Your task to perform on an android device: Open the map Image 0: 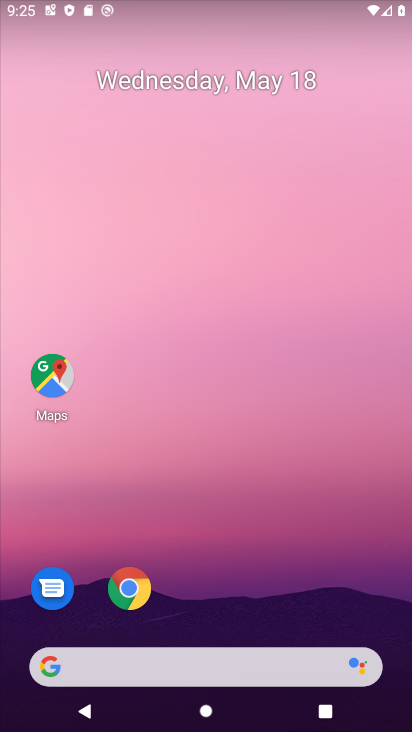
Step 0: drag from (286, 672) to (337, 129)
Your task to perform on an android device: Open the map Image 1: 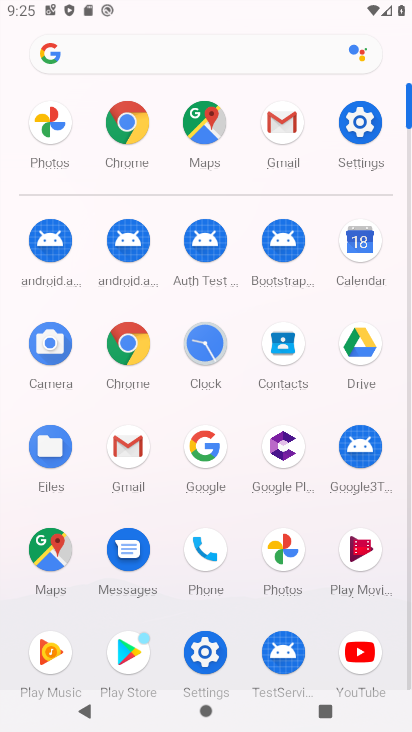
Step 1: click (213, 134)
Your task to perform on an android device: Open the map Image 2: 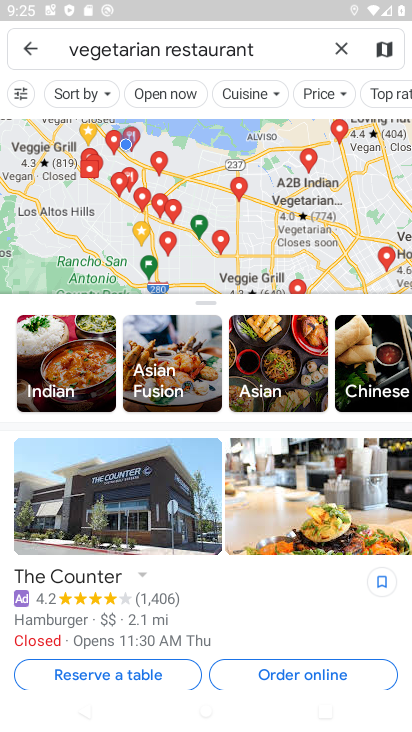
Step 2: click (22, 56)
Your task to perform on an android device: Open the map Image 3: 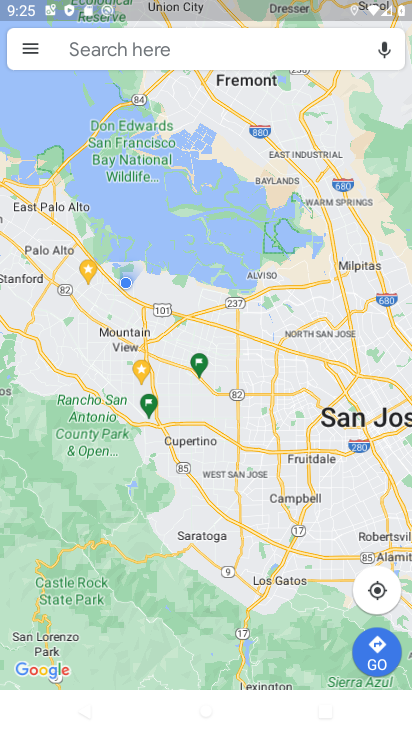
Step 3: click (191, 285)
Your task to perform on an android device: Open the map Image 4: 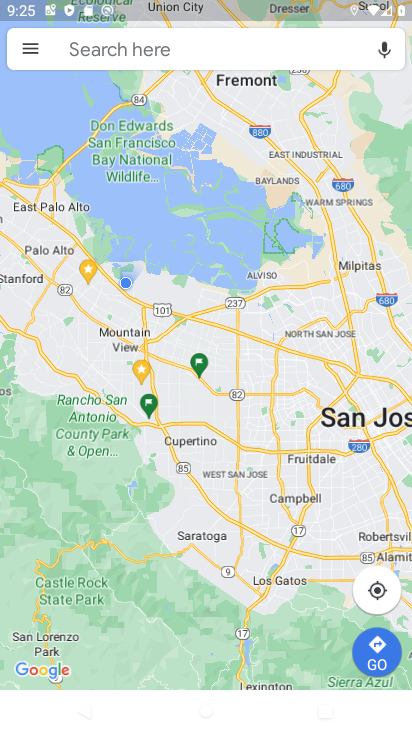
Step 4: task complete